Your task to perform on an android device: Do I have any events this weekend? Image 0: 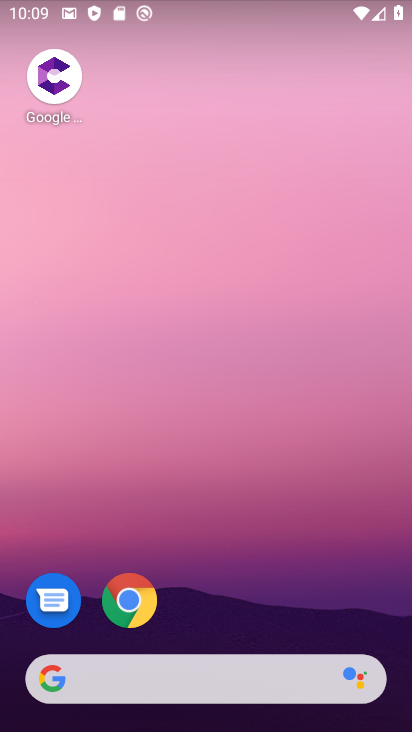
Step 0: drag from (262, 532) to (233, 25)
Your task to perform on an android device: Do I have any events this weekend? Image 1: 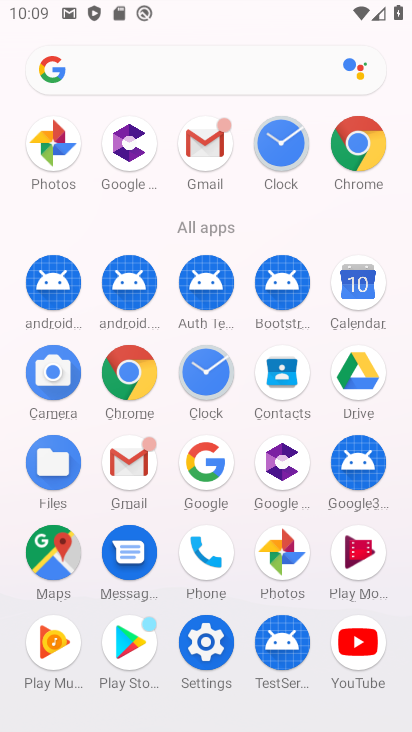
Step 1: drag from (16, 498) to (13, 199)
Your task to perform on an android device: Do I have any events this weekend? Image 2: 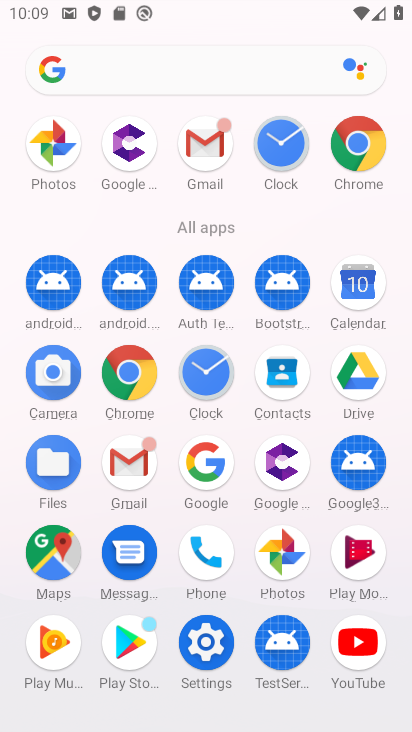
Step 2: click (360, 280)
Your task to perform on an android device: Do I have any events this weekend? Image 3: 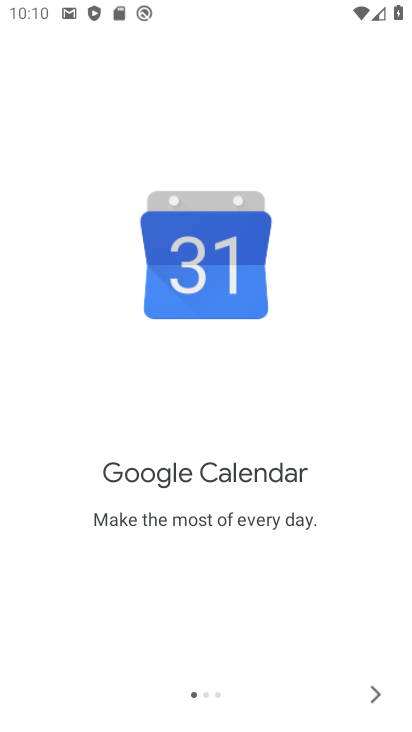
Step 3: click (370, 685)
Your task to perform on an android device: Do I have any events this weekend? Image 4: 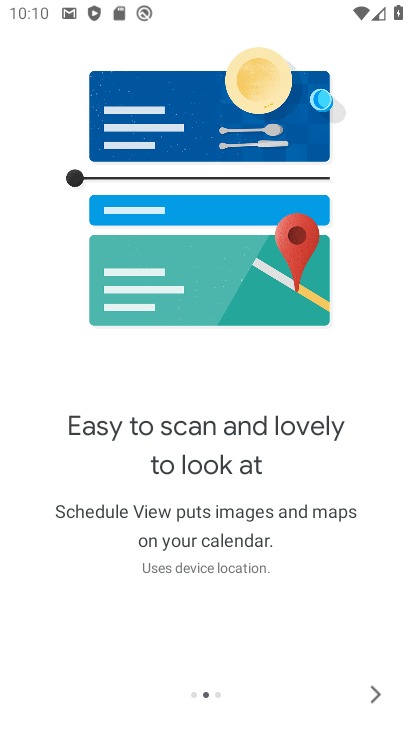
Step 4: click (369, 685)
Your task to perform on an android device: Do I have any events this weekend? Image 5: 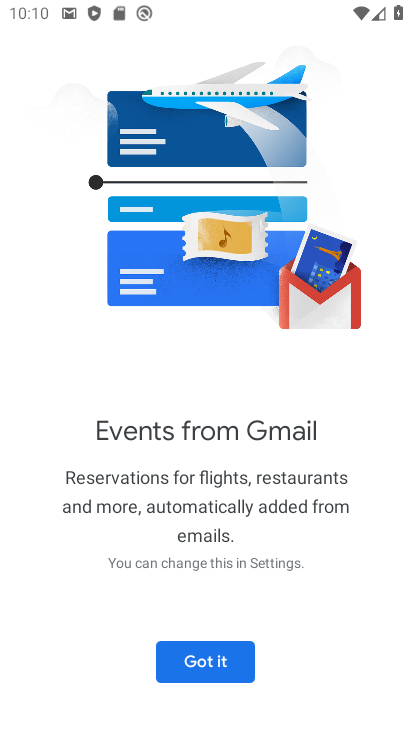
Step 5: click (195, 649)
Your task to perform on an android device: Do I have any events this weekend? Image 6: 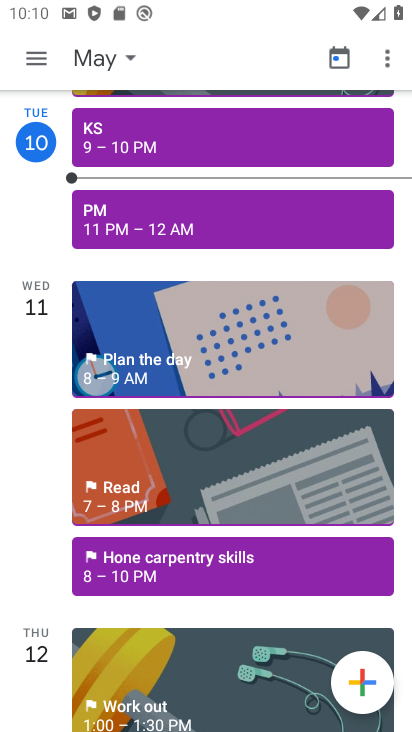
Step 6: click (40, 55)
Your task to perform on an android device: Do I have any events this weekend? Image 7: 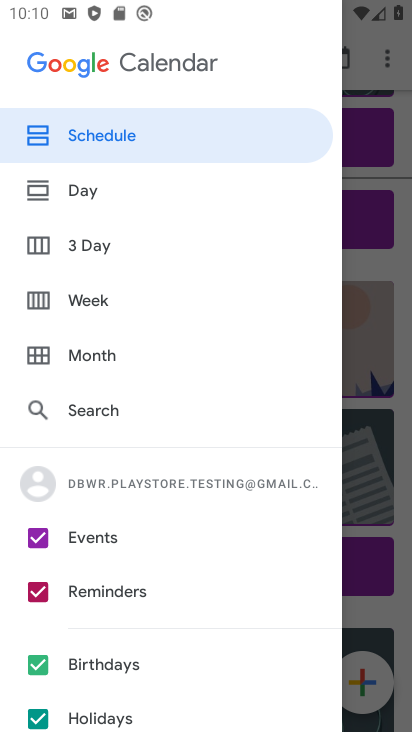
Step 7: click (114, 302)
Your task to perform on an android device: Do I have any events this weekend? Image 8: 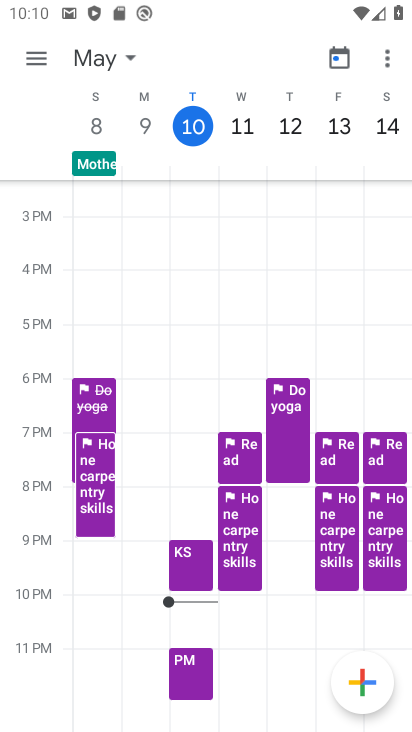
Step 8: click (376, 126)
Your task to perform on an android device: Do I have any events this weekend? Image 9: 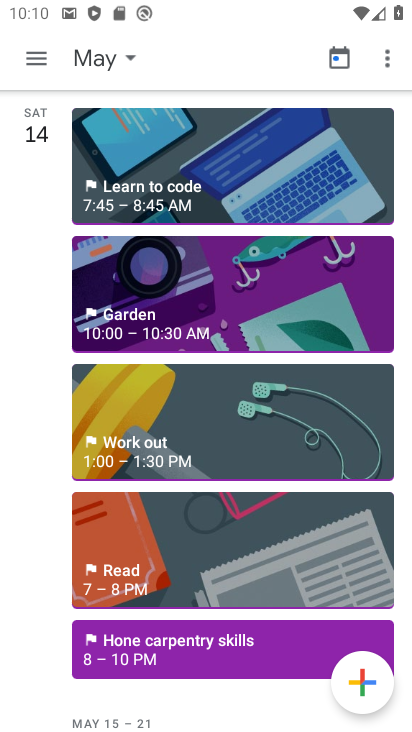
Step 9: task complete